Your task to perform on an android device: delete the emails in spam in the gmail app Image 0: 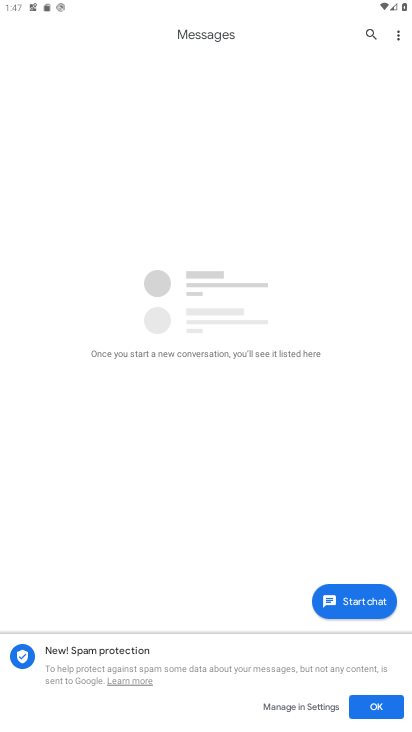
Step 0: press home button
Your task to perform on an android device: delete the emails in spam in the gmail app Image 1: 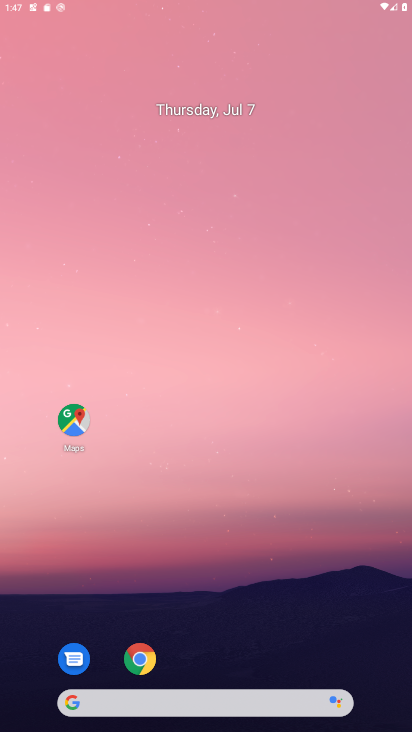
Step 1: drag from (186, 264) to (185, 72)
Your task to perform on an android device: delete the emails in spam in the gmail app Image 2: 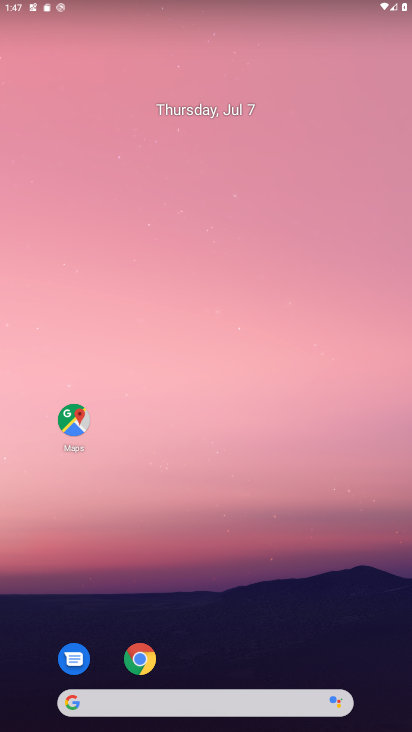
Step 2: drag from (186, 668) to (226, 7)
Your task to perform on an android device: delete the emails in spam in the gmail app Image 3: 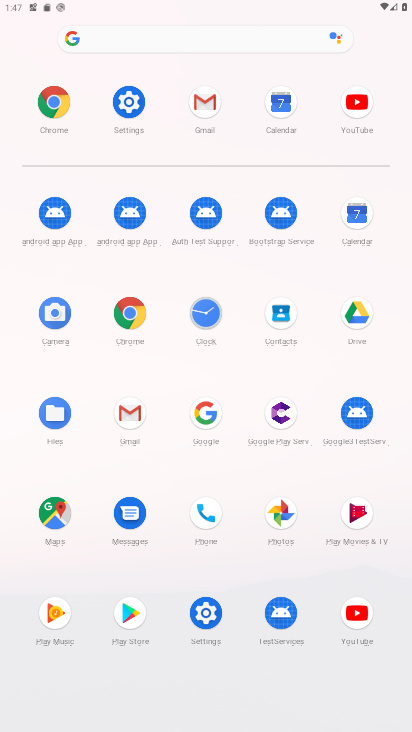
Step 3: click (196, 92)
Your task to perform on an android device: delete the emails in spam in the gmail app Image 4: 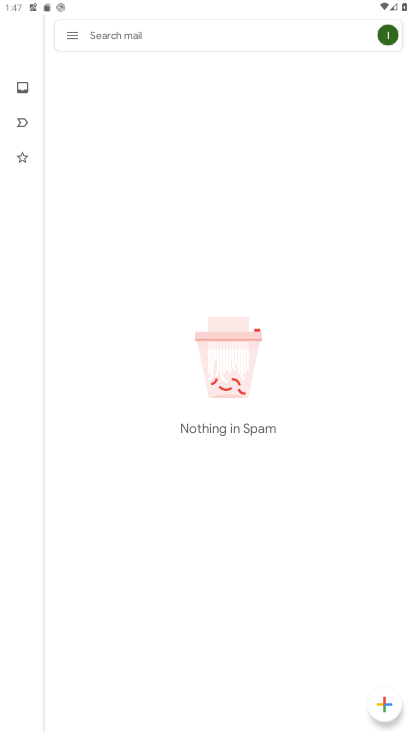
Step 4: drag from (215, 522) to (230, 294)
Your task to perform on an android device: delete the emails in spam in the gmail app Image 5: 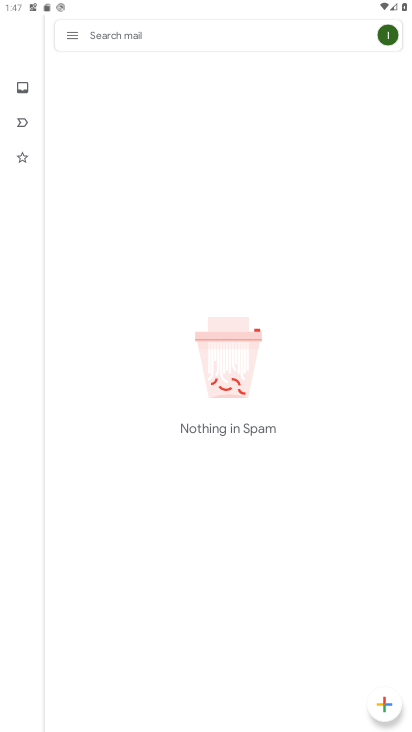
Step 5: click (68, 37)
Your task to perform on an android device: delete the emails in spam in the gmail app Image 6: 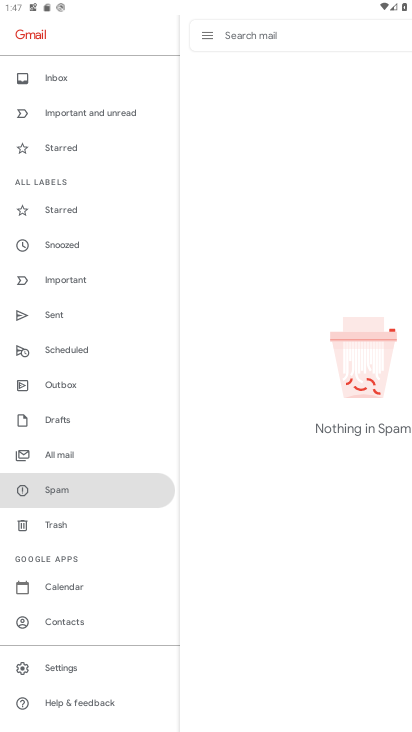
Step 6: click (92, 491)
Your task to perform on an android device: delete the emails in spam in the gmail app Image 7: 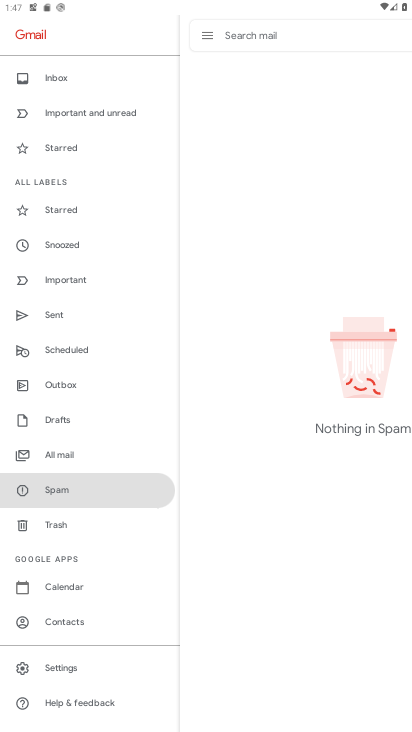
Step 7: task complete